Your task to perform on an android device: Set the phone to "Do not disturb". Image 0: 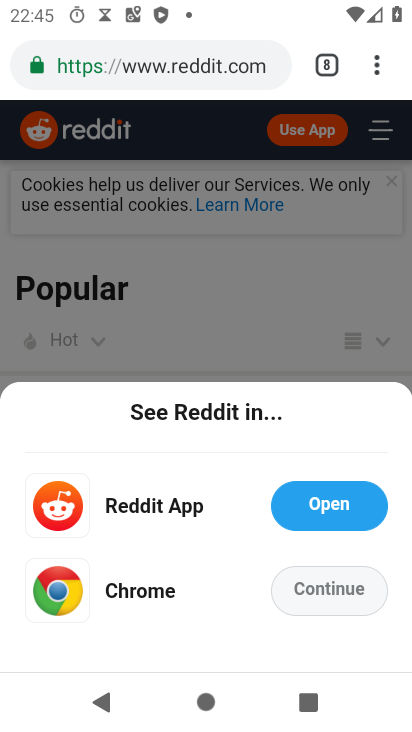
Step 0: press home button
Your task to perform on an android device: Set the phone to "Do not disturb". Image 1: 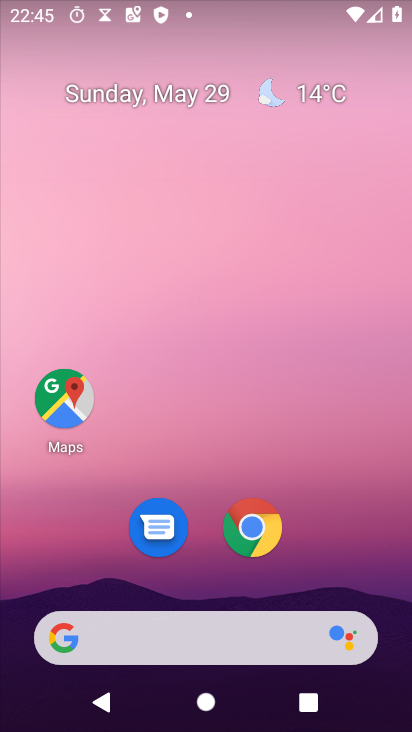
Step 1: drag from (197, 568) to (308, 160)
Your task to perform on an android device: Set the phone to "Do not disturb". Image 2: 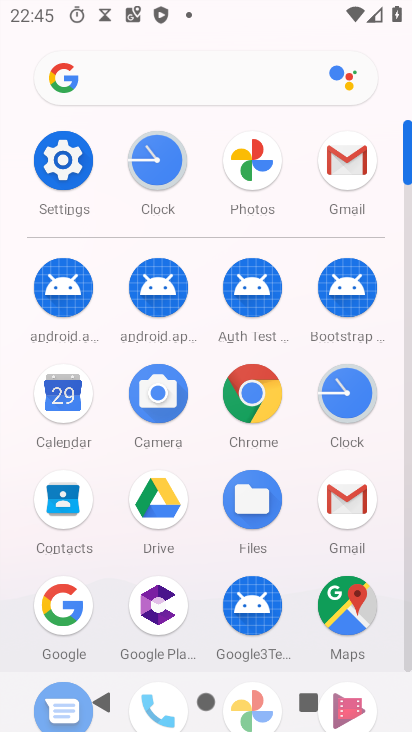
Step 2: click (65, 167)
Your task to perform on an android device: Set the phone to "Do not disturb". Image 3: 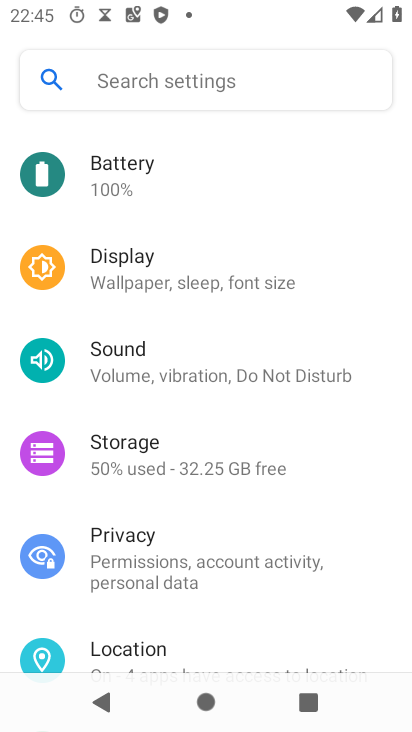
Step 3: click (182, 372)
Your task to perform on an android device: Set the phone to "Do not disturb". Image 4: 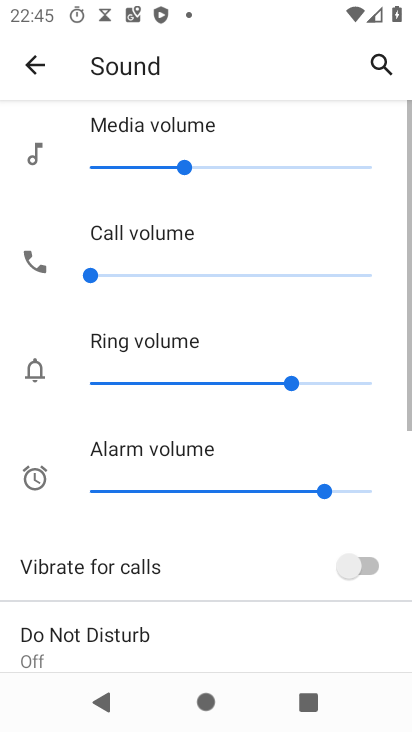
Step 4: drag from (177, 625) to (313, 206)
Your task to perform on an android device: Set the phone to "Do not disturb". Image 5: 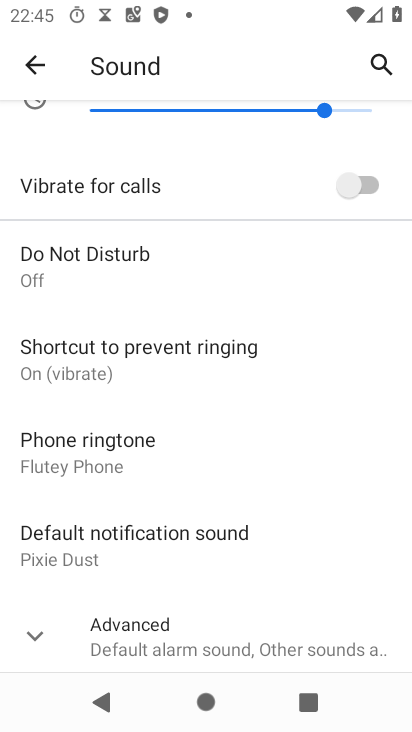
Step 5: click (87, 280)
Your task to perform on an android device: Set the phone to "Do not disturb". Image 6: 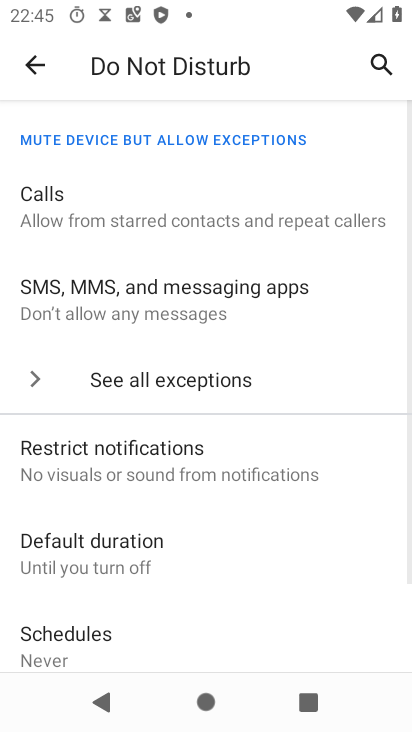
Step 6: drag from (119, 614) to (300, 110)
Your task to perform on an android device: Set the phone to "Do not disturb". Image 7: 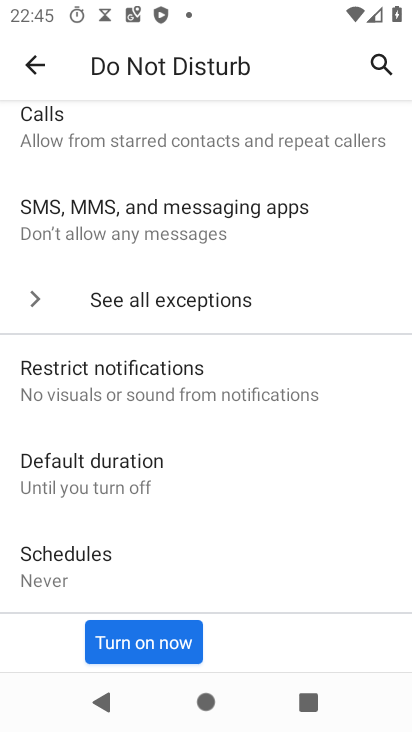
Step 7: click (146, 659)
Your task to perform on an android device: Set the phone to "Do not disturb". Image 8: 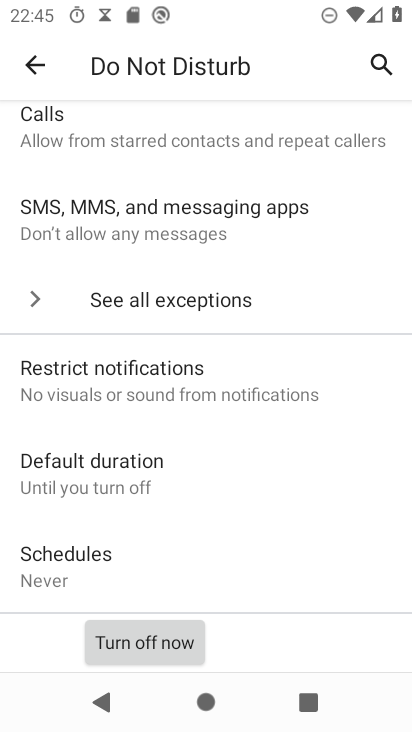
Step 8: task complete